Your task to perform on an android device: manage bookmarks in the chrome app Image 0: 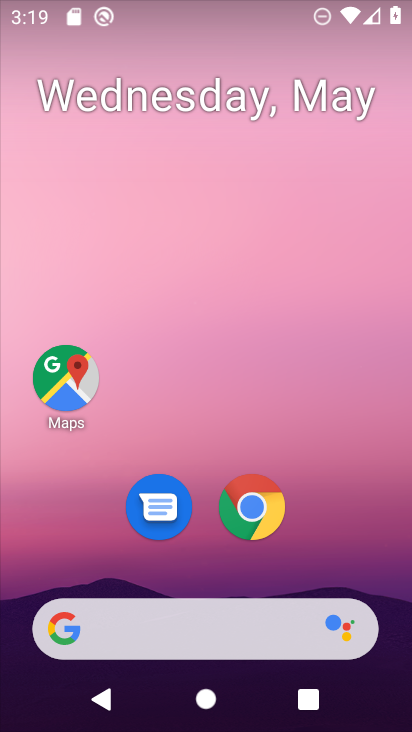
Step 0: click (256, 492)
Your task to perform on an android device: manage bookmarks in the chrome app Image 1: 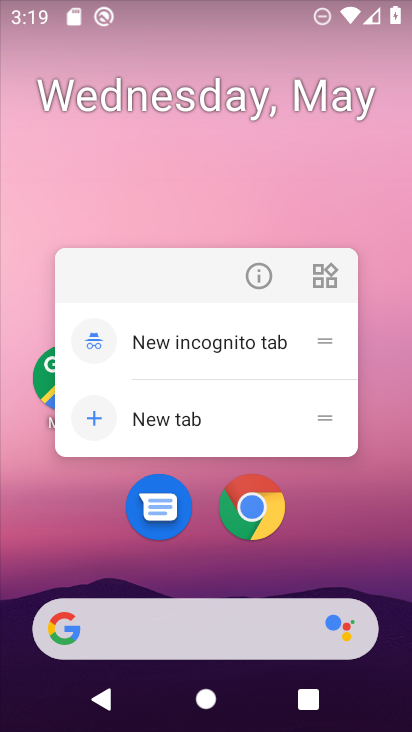
Step 1: click (256, 492)
Your task to perform on an android device: manage bookmarks in the chrome app Image 2: 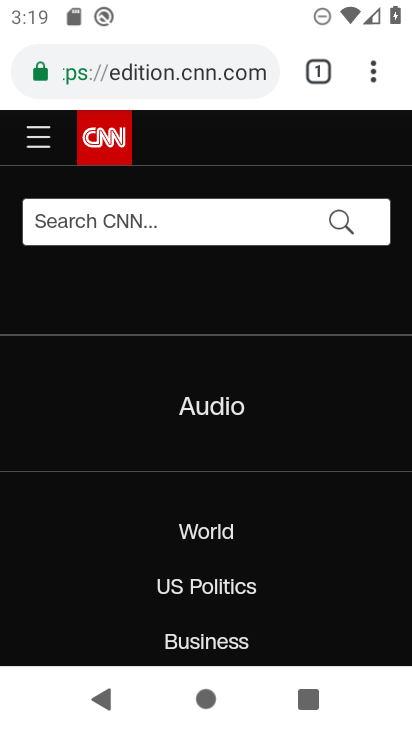
Step 2: click (382, 74)
Your task to perform on an android device: manage bookmarks in the chrome app Image 3: 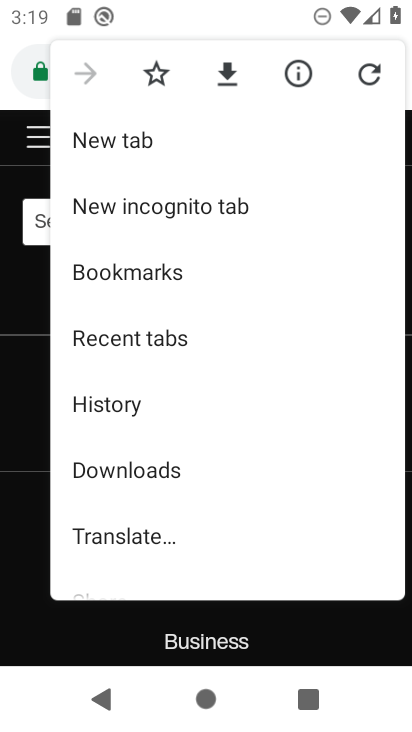
Step 3: drag from (124, 507) to (169, 212)
Your task to perform on an android device: manage bookmarks in the chrome app Image 4: 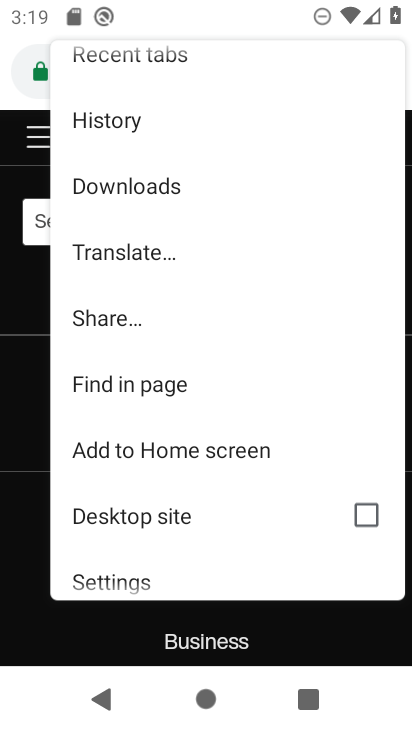
Step 4: drag from (132, 532) to (199, 233)
Your task to perform on an android device: manage bookmarks in the chrome app Image 5: 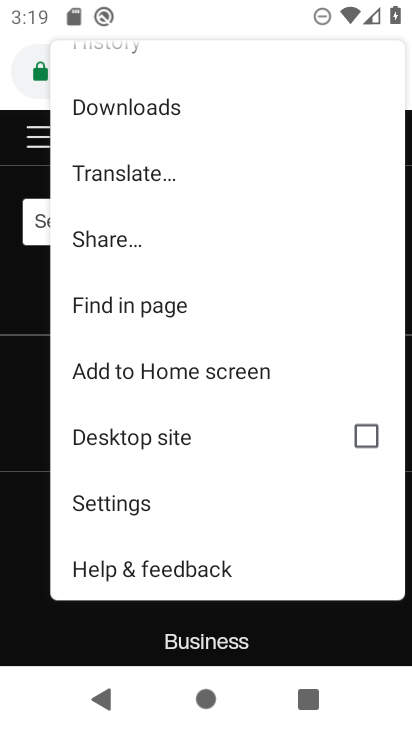
Step 5: drag from (147, 215) to (150, 521)
Your task to perform on an android device: manage bookmarks in the chrome app Image 6: 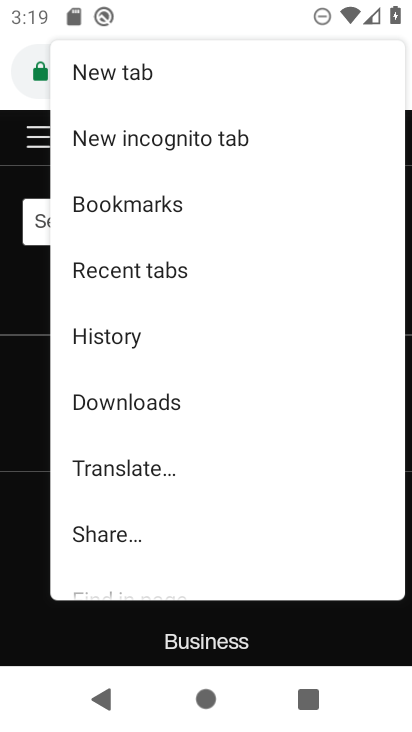
Step 6: drag from (187, 148) to (186, 347)
Your task to perform on an android device: manage bookmarks in the chrome app Image 7: 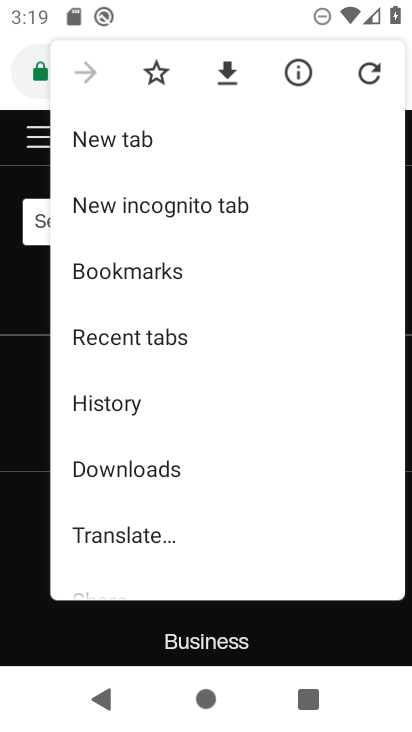
Step 7: click (156, 281)
Your task to perform on an android device: manage bookmarks in the chrome app Image 8: 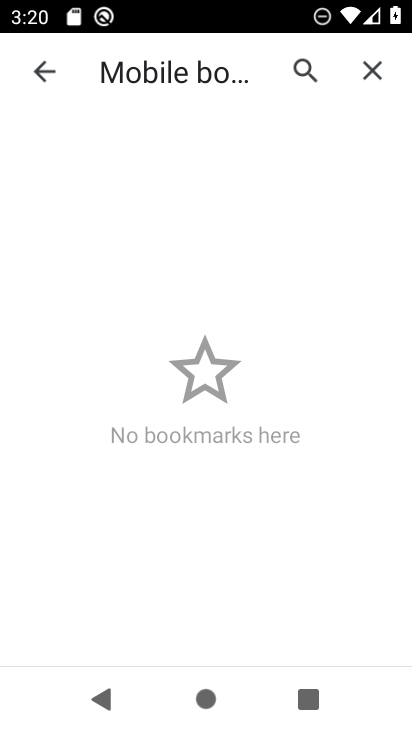
Step 8: task complete